Your task to perform on an android device: Open settings Image 0: 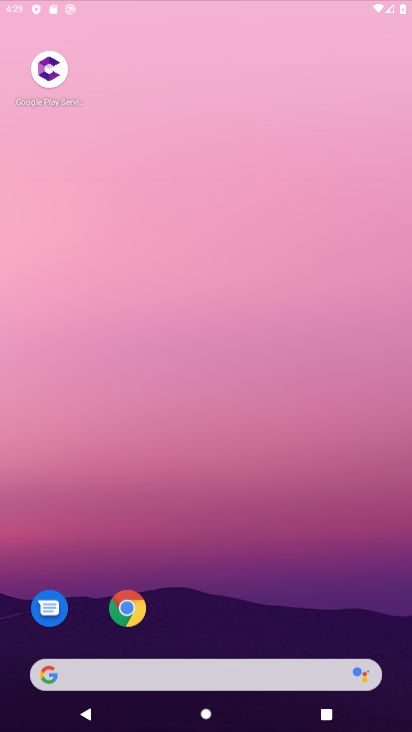
Step 0: press home button
Your task to perform on an android device: Open settings Image 1: 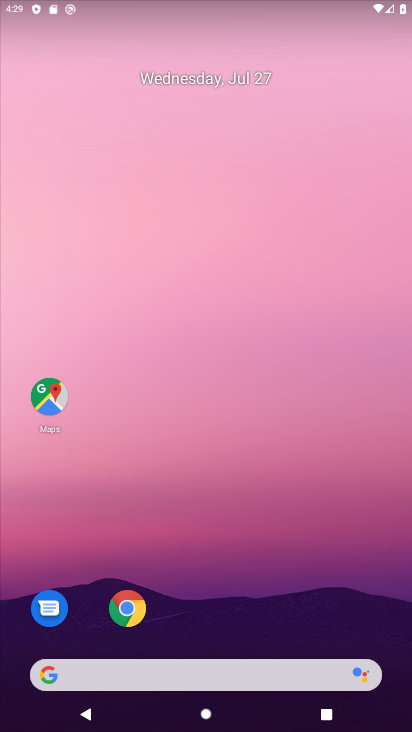
Step 1: drag from (255, 635) to (213, 334)
Your task to perform on an android device: Open settings Image 2: 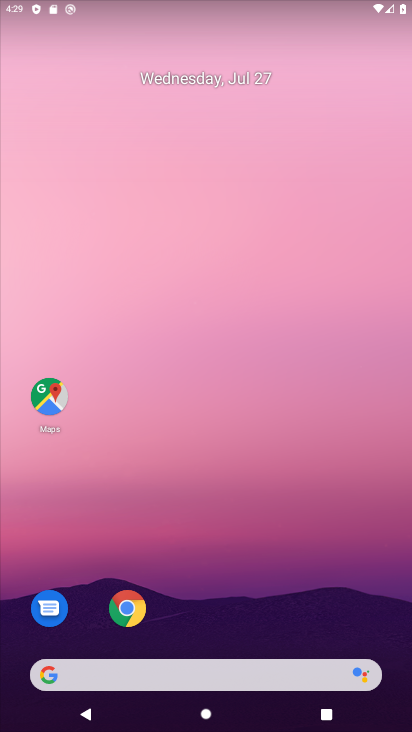
Step 2: drag from (293, 595) to (285, 531)
Your task to perform on an android device: Open settings Image 3: 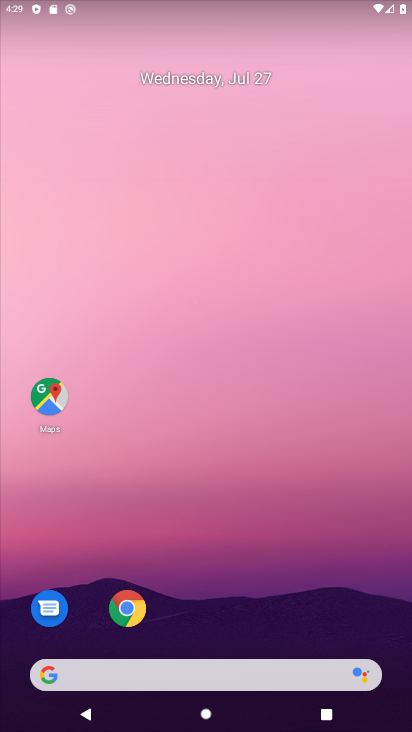
Step 3: drag from (271, 617) to (226, 71)
Your task to perform on an android device: Open settings Image 4: 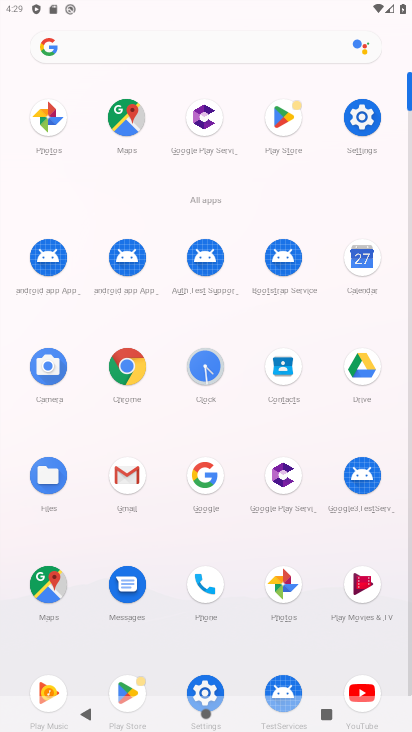
Step 4: click (367, 129)
Your task to perform on an android device: Open settings Image 5: 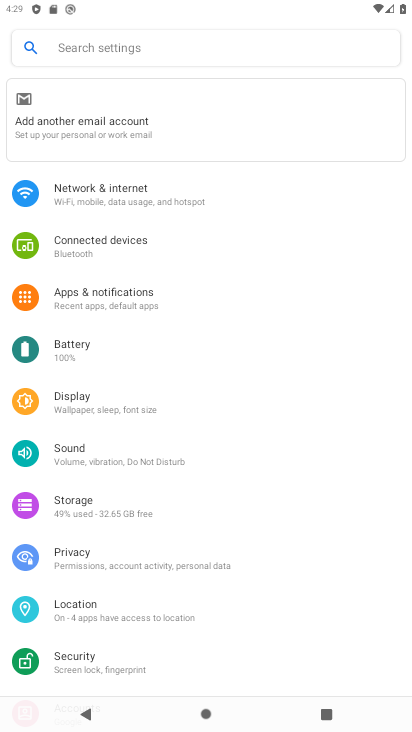
Step 5: task complete